Your task to perform on an android device: check battery use Image 0: 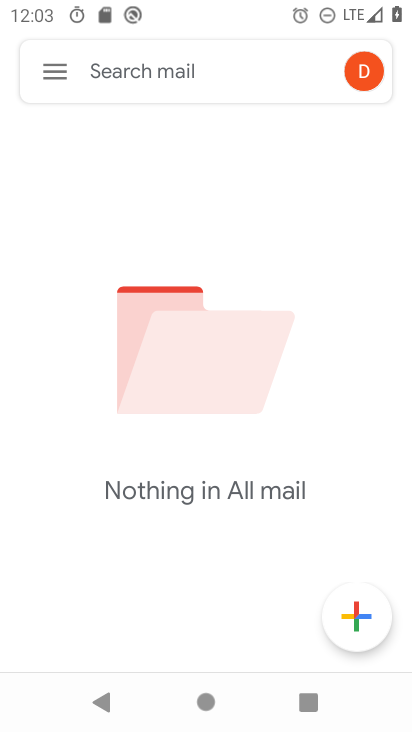
Step 0: press home button
Your task to perform on an android device: check battery use Image 1: 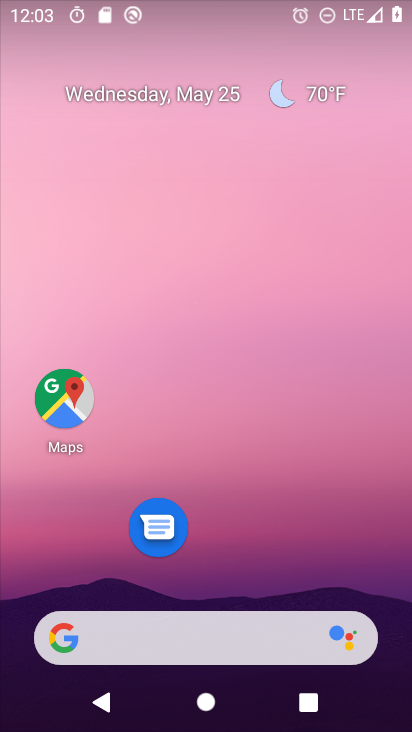
Step 1: drag from (241, 539) to (261, 92)
Your task to perform on an android device: check battery use Image 2: 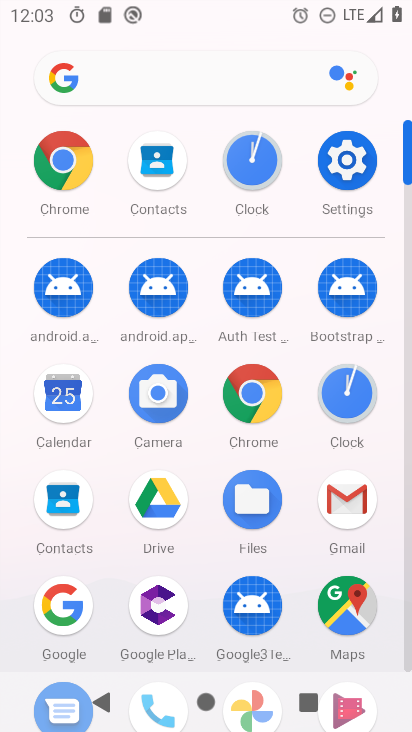
Step 2: click (344, 167)
Your task to perform on an android device: check battery use Image 3: 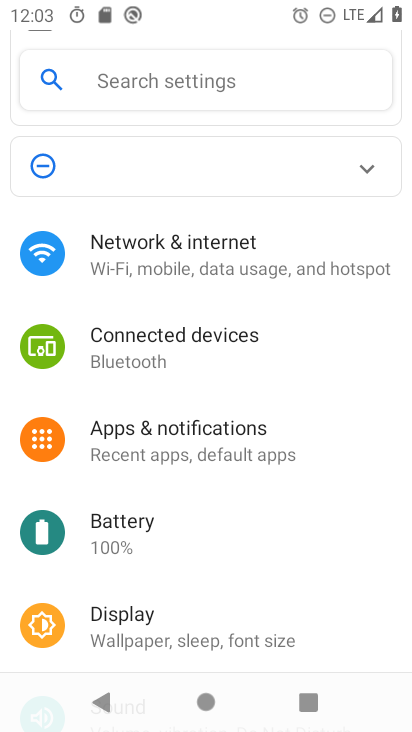
Step 3: drag from (266, 528) to (233, 255)
Your task to perform on an android device: check battery use Image 4: 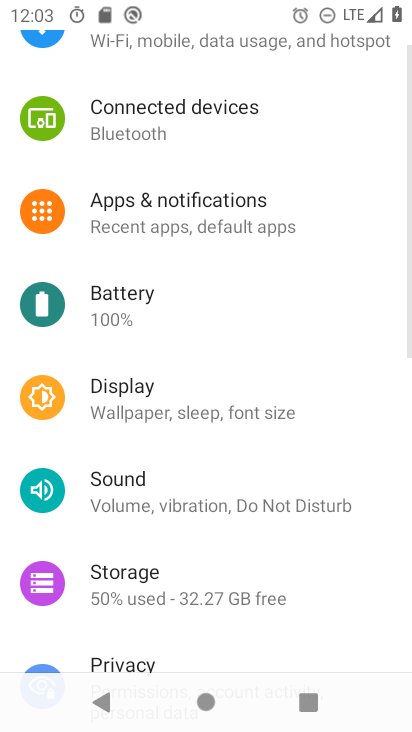
Step 4: click (134, 304)
Your task to perform on an android device: check battery use Image 5: 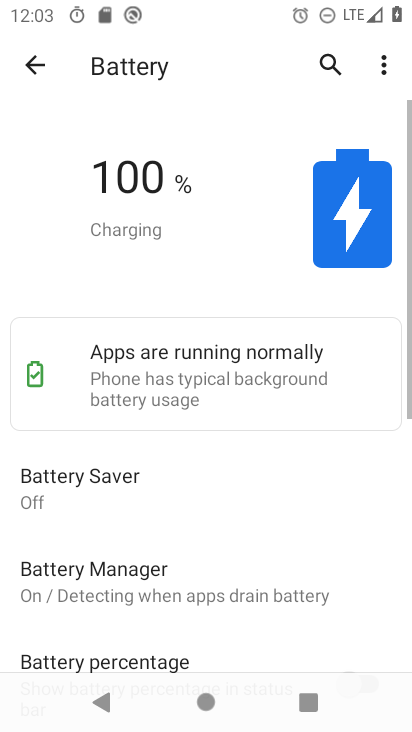
Step 5: click (363, 64)
Your task to perform on an android device: check battery use Image 6: 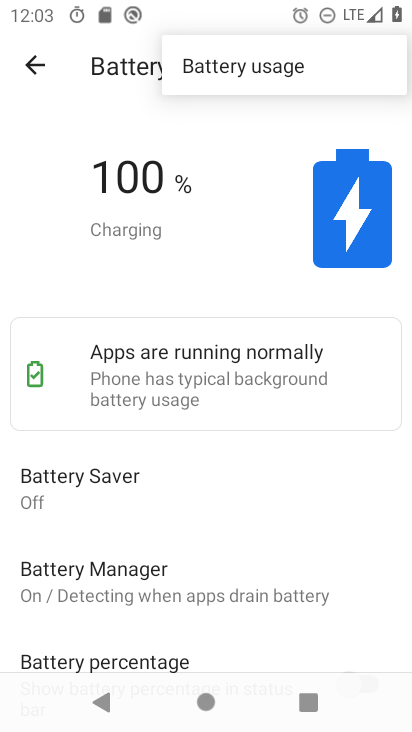
Step 6: click (247, 76)
Your task to perform on an android device: check battery use Image 7: 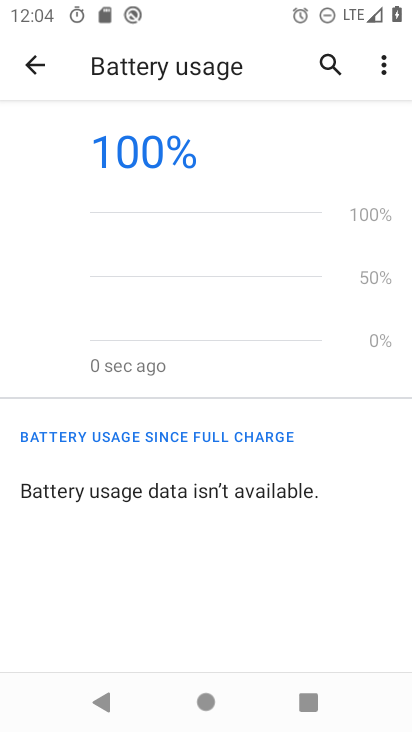
Step 7: task complete